Your task to perform on an android device: Open calendar and show me the first week of next month Image 0: 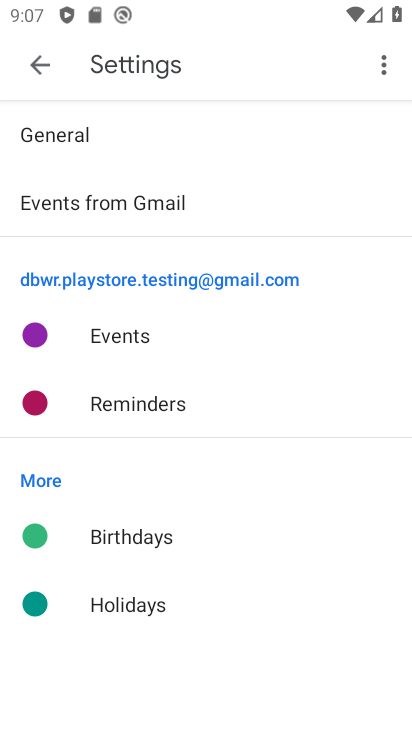
Step 0: press home button
Your task to perform on an android device: Open calendar and show me the first week of next month Image 1: 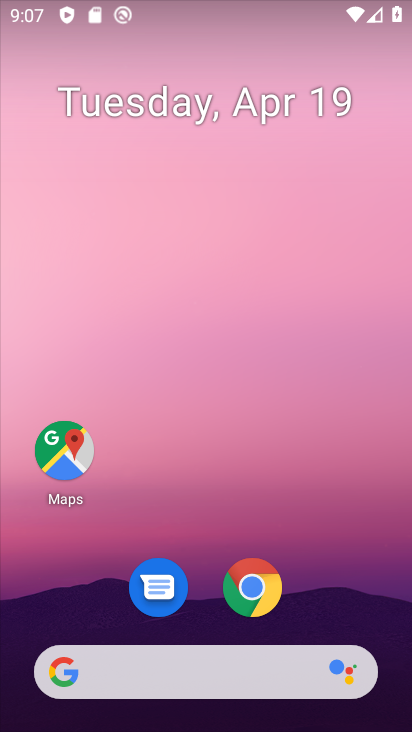
Step 1: drag from (371, 584) to (408, 276)
Your task to perform on an android device: Open calendar and show me the first week of next month Image 2: 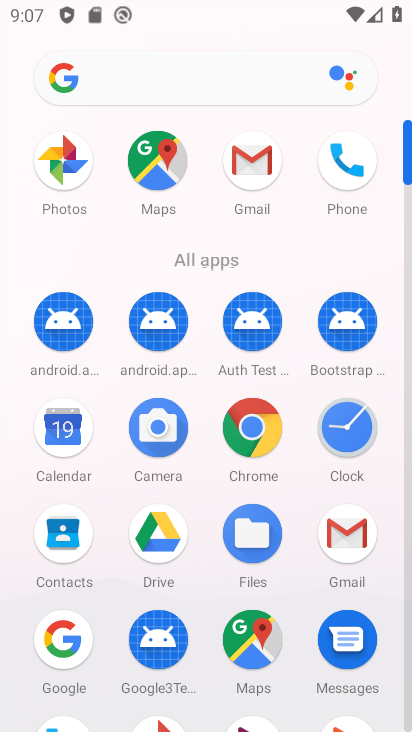
Step 2: click (59, 435)
Your task to perform on an android device: Open calendar and show me the first week of next month Image 3: 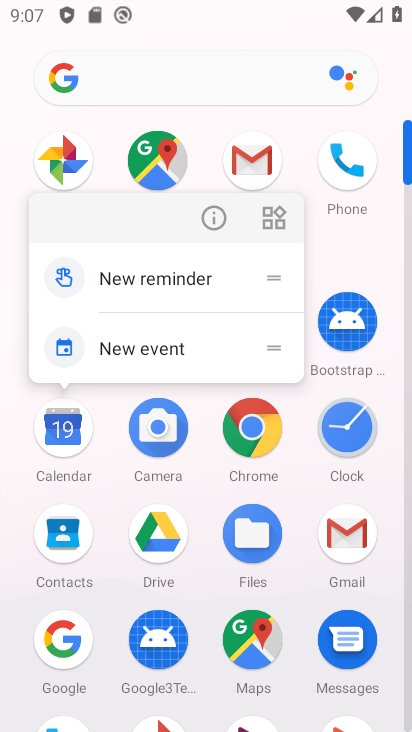
Step 3: click (57, 436)
Your task to perform on an android device: Open calendar and show me the first week of next month Image 4: 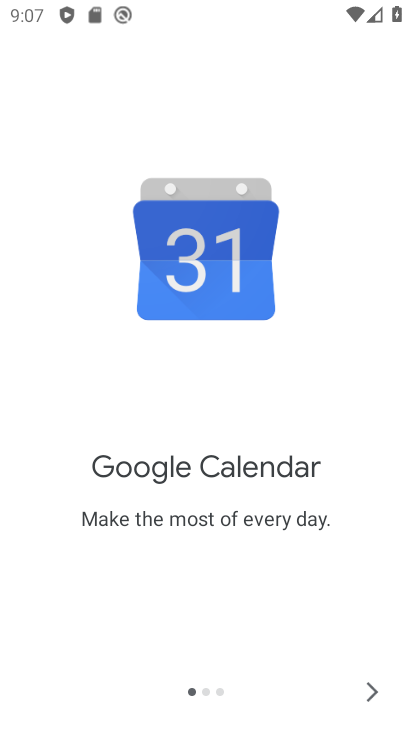
Step 4: click (361, 702)
Your task to perform on an android device: Open calendar and show me the first week of next month Image 5: 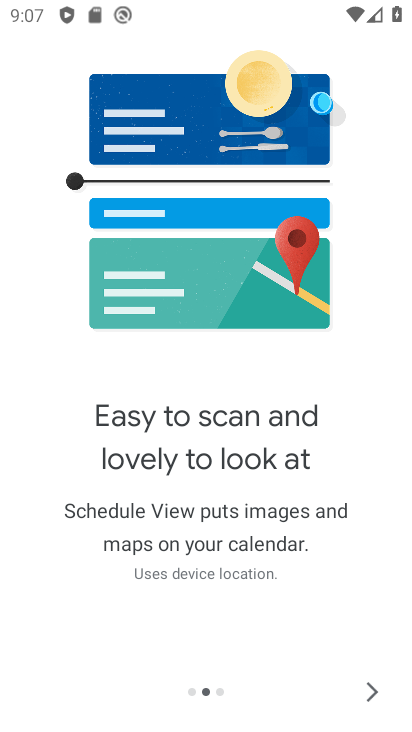
Step 5: click (361, 702)
Your task to perform on an android device: Open calendar and show me the first week of next month Image 6: 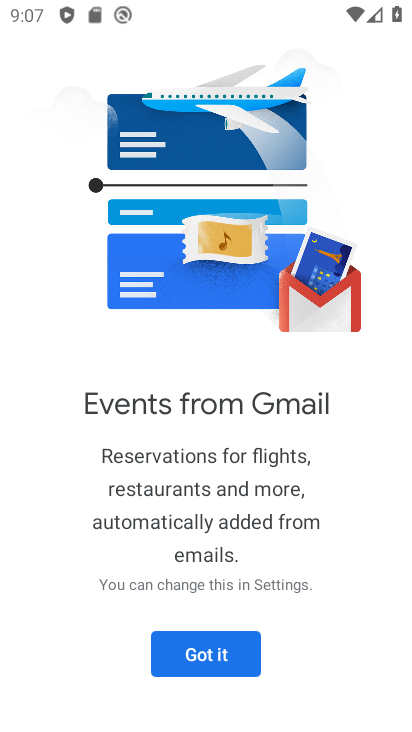
Step 6: click (230, 654)
Your task to perform on an android device: Open calendar and show me the first week of next month Image 7: 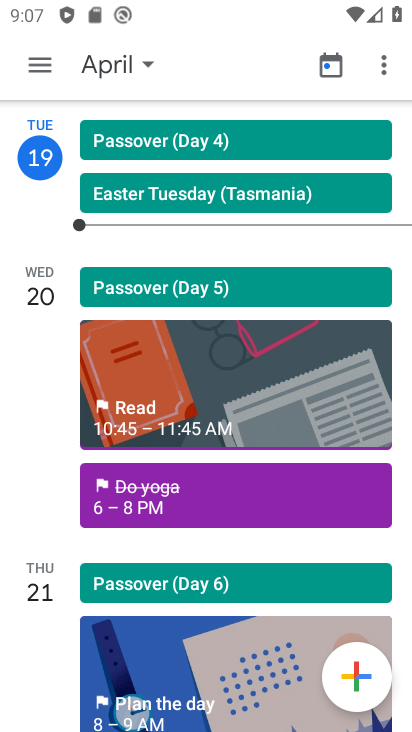
Step 7: click (124, 68)
Your task to perform on an android device: Open calendar and show me the first week of next month Image 8: 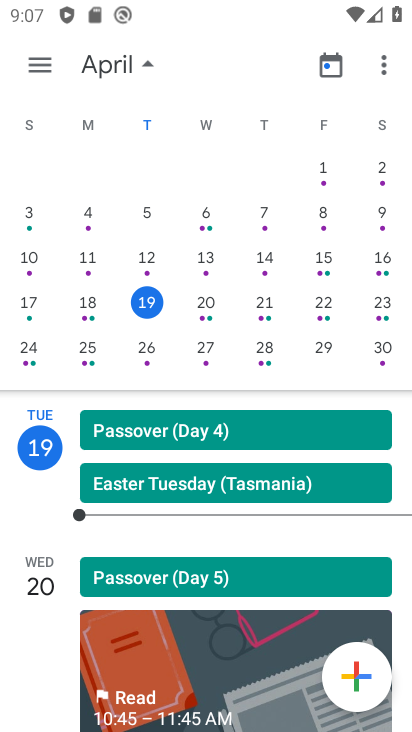
Step 8: drag from (315, 318) to (5, 336)
Your task to perform on an android device: Open calendar and show me the first week of next month Image 9: 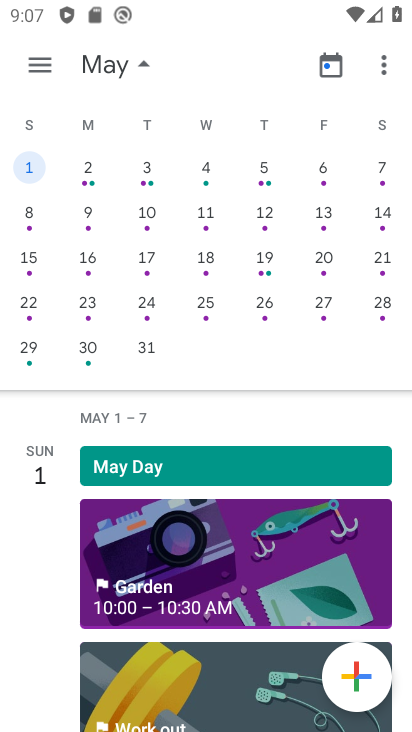
Step 9: click (82, 177)
Your task to perform on an android device: Open calendar and show me the first week of next month Image 10: 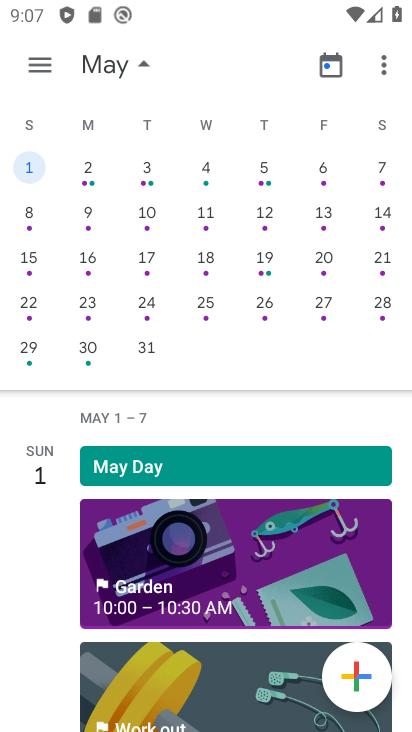
Step 10: click (144, 183)
Your task to perform on an android device: Open calendar and show me the first week of next month Image 11: 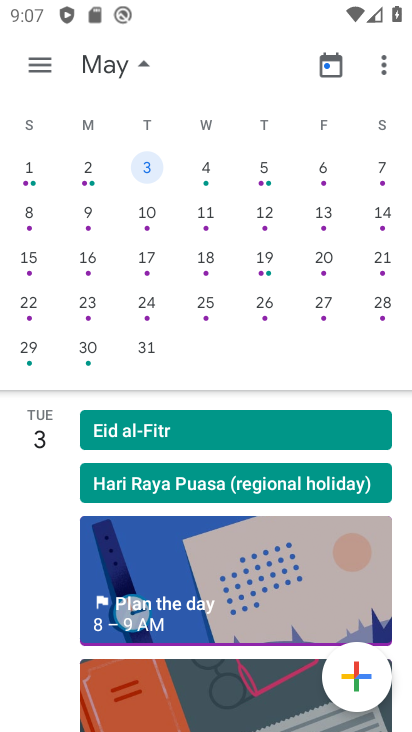
Step 11: click (210, 173)
Your task to perform on an android device: Open calendar and show me the first week of next month Image 12: 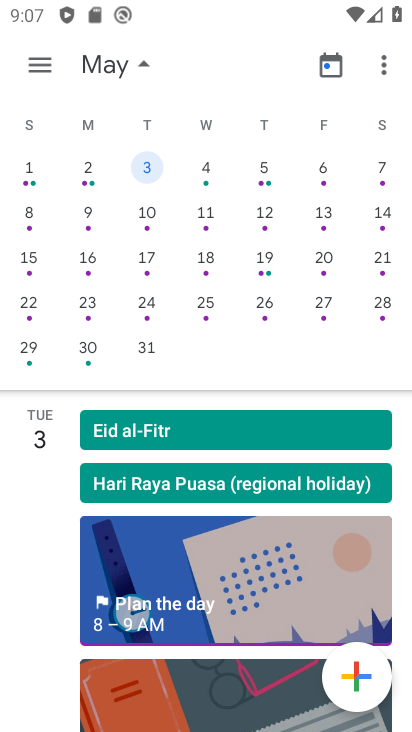
Step 12: click (271, 175)
Your task to perform on an android device: Open calendar and show me the first week of next month Image 13: 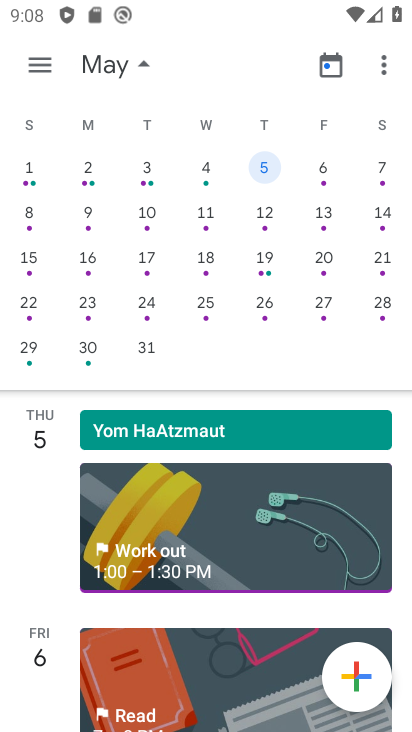
Step 13: click (322, 176)
Your task to perform on an android device: Open calendar and show me the first week of next month Image 14: 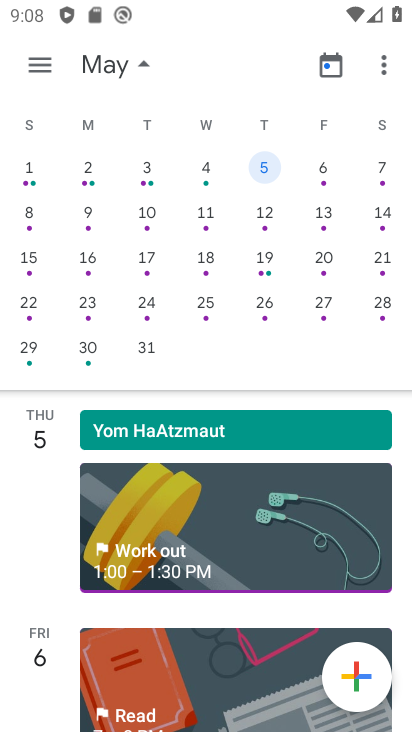
Step 14: click (381, 180)
Your task to perform on an android device: Open calendar and show me the first week of next month Image 15: 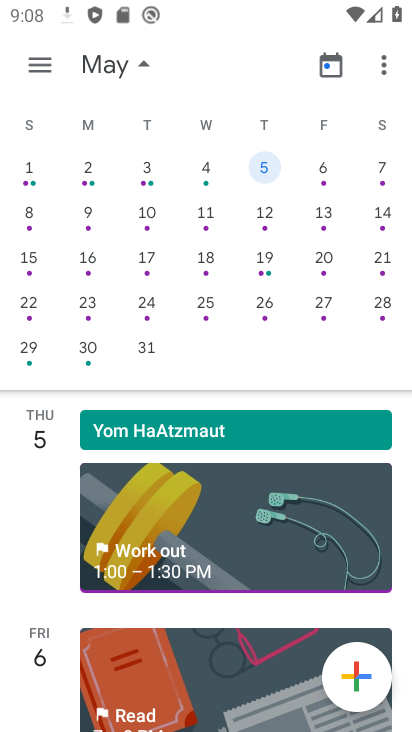
Step 15: click (381, 171)
Your task to perform on an android device: Open calendar and show me the first week of next month Image 16: 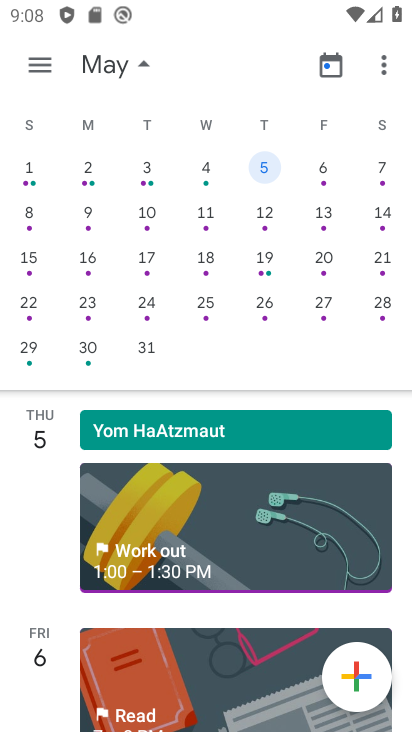
Step 16: click (321, 178)
Your task to perform on an android device: Open calendar and show me the first week of next month Image 17: 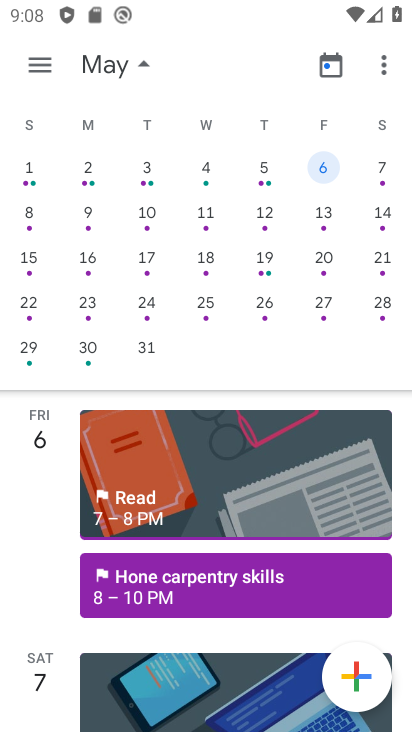
Step 17: click (389, 175)
Your task to perform on an android device: Open calendar and show me the first week of next month Image 18: 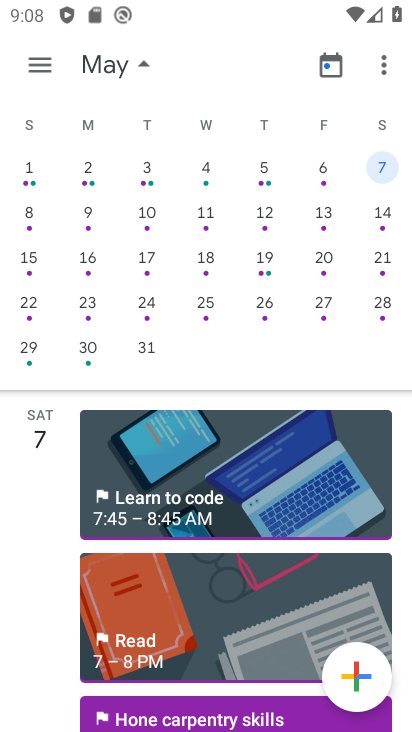
Step 18: task complete